Your task to perform on an android device: turn on notifications settings in the gmail app Image 0: 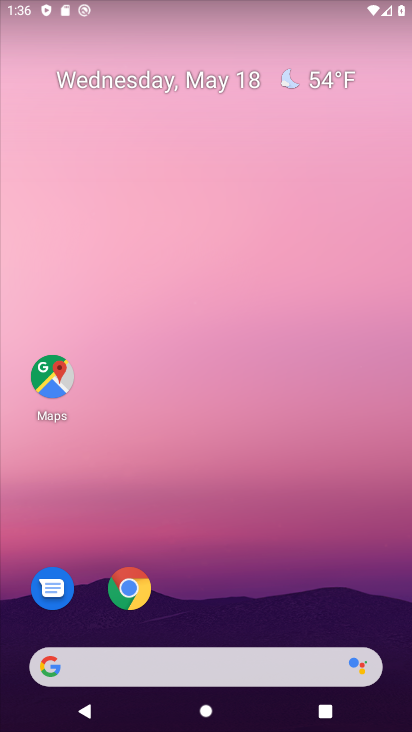
Step 0: drag from (158, 659) to (233, 136)
Your task to perform on an android device: turn on notifications settings in the gmail app Image 1: 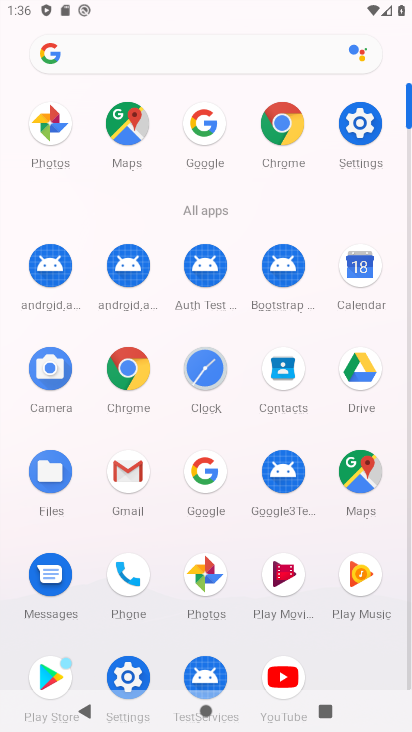
Step 1: click (122, 483)
Your task to perform on an android device: turn on notifications settings in the gmail app Image 2: 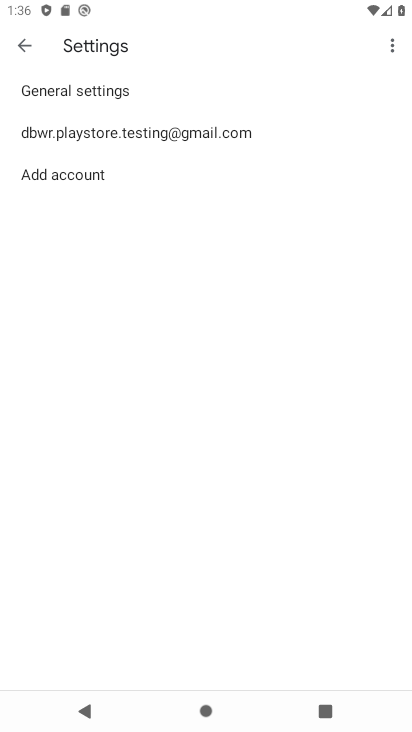
Step 2: click (140, 128)
Your task to perform on an android device: turn on notifications settings in the gmail app Image 3: 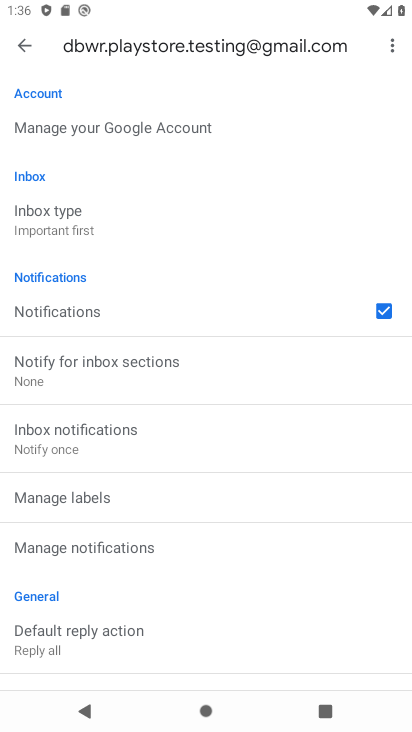
Step 3: click (179, 544)
Your task to perform on an android device: turn on notifications settings in the gmail app Image 4: 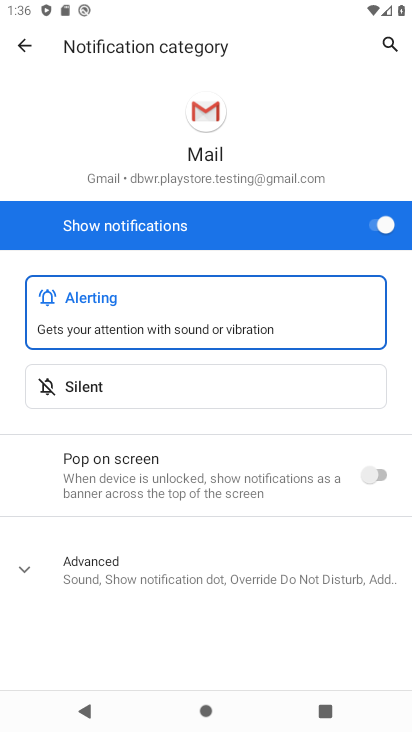
Step 4: task complete